Your task to perform on an android device: Go to sound settings Image 0: 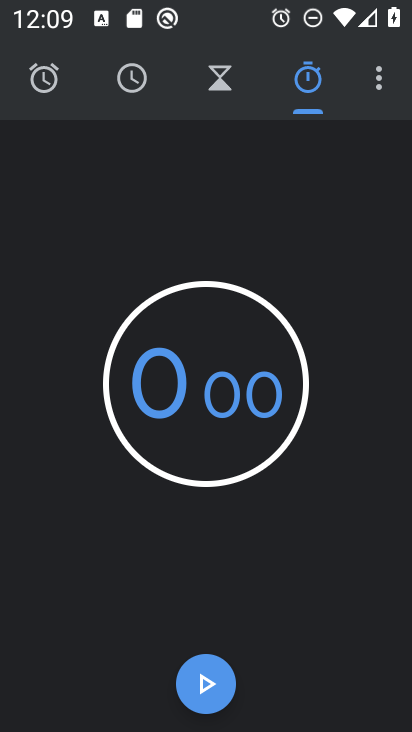
Step 0: press home button
Your task to perform on an android device: Go to sound settings Image 1: 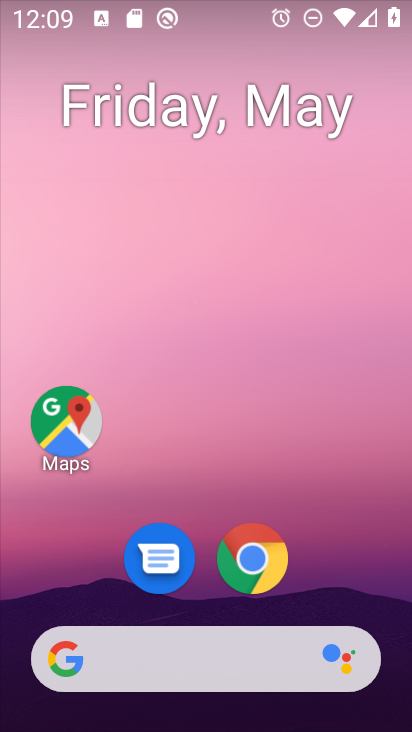
Step 1: drag from (392, 620) to (347, 90)
Your task to perform on an android device: Go to sound settings Image 2: 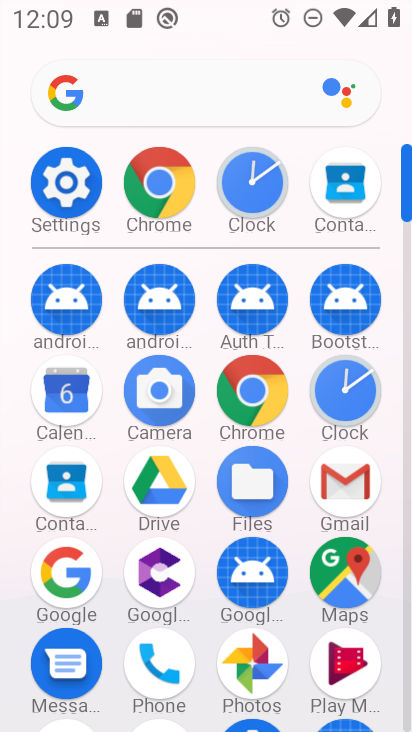
Step 2: click (405, 707)
Your task to perform on an android device: Go to sound settings Image 3: 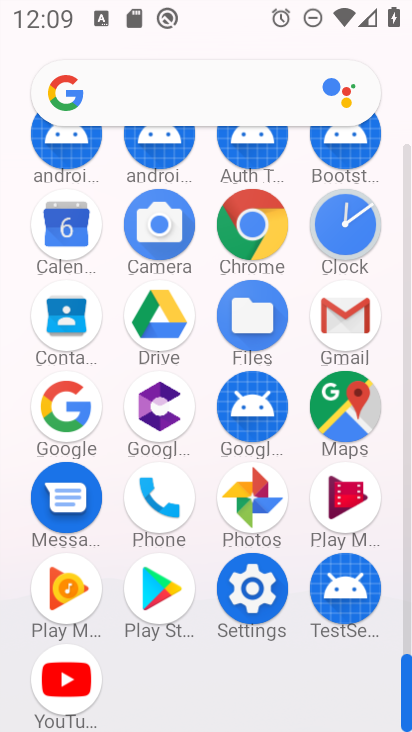
Step 3: click (250, 590)
Your task to perform on an android device: Go to sound settings Image 4: 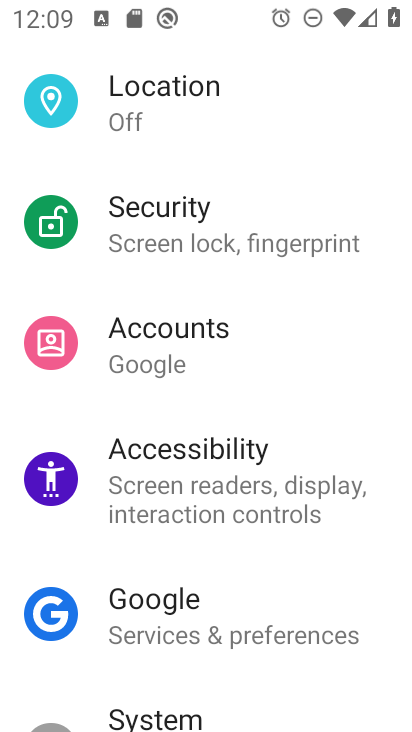
Step 4: drag from (375, 145) to (379, 509)
Your task to perform on an android device: Go to sound settings Image 5: 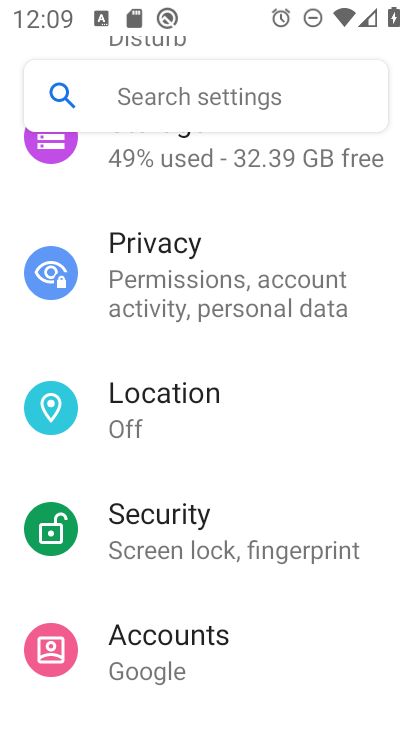
Step 5: drag from (361, 275) to (345, 532)
Your task to perform on an android device: Go to sound settings Image 6: 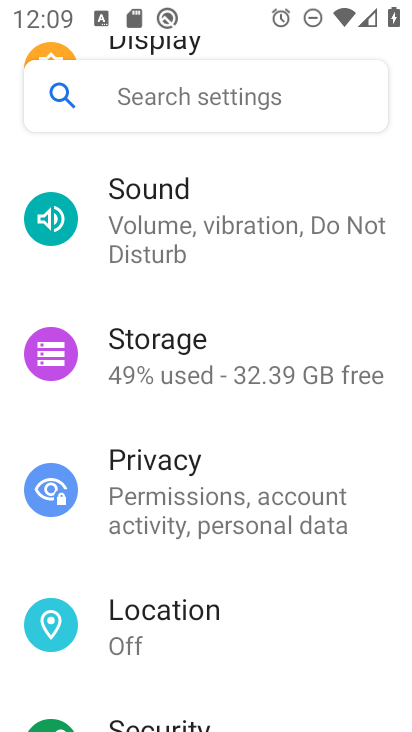
Step 6: click (152, 233)
Your task to perform on an android device: Go to sound settings Image 7: 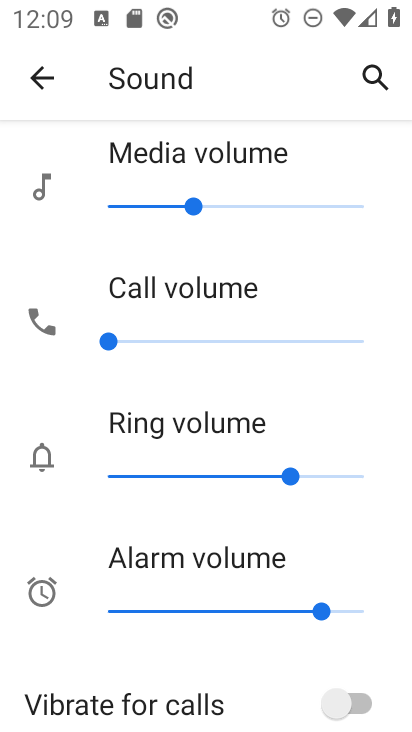
Step 7: drag from (356, 639) to (372, 188)
Your task to perform on an android device: Go to sound settings Image 8: 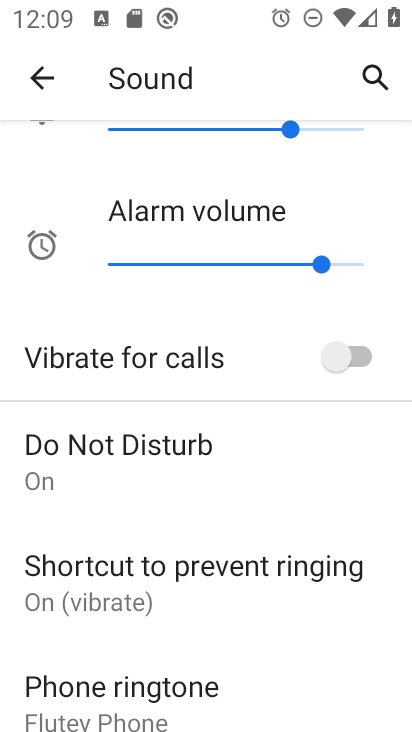
Step 8: drag from (300, 663) to (383, 266)
Your task to perform on an android device: Go to sound settings Image 9: 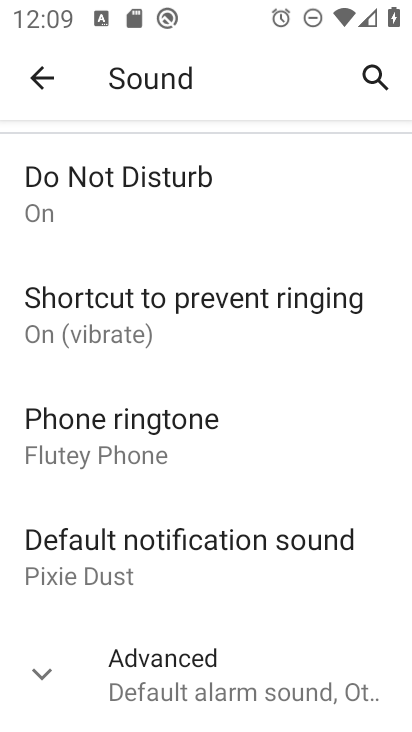
Step 9: click (41, 676)
Your task to perform on an android device: Go to sound settings Image 10: 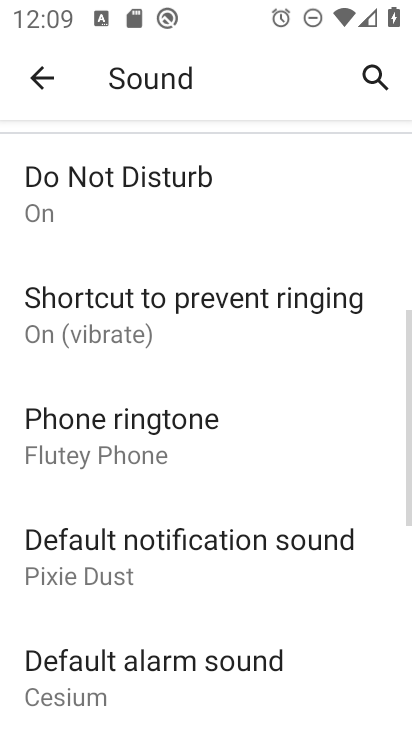
Step 10: task complete